Your task to perform on an android device: Open sound settings Image 0: 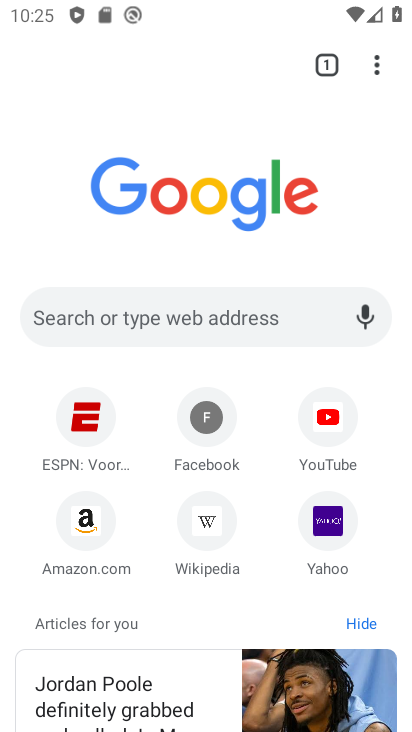
Step 0: press home button
Your task to perform on an android device: Open sound settings Image 1: 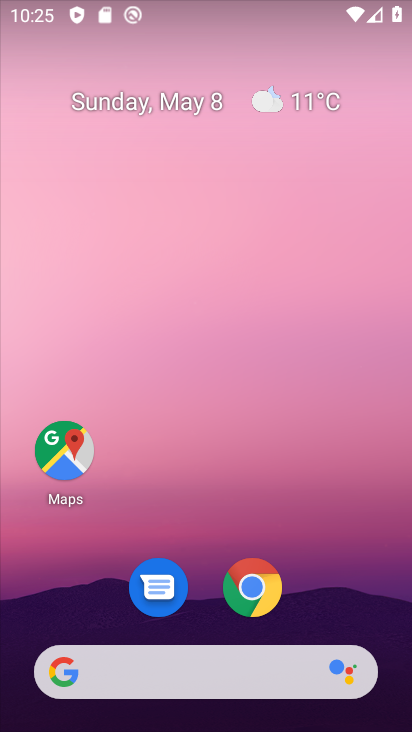
Step 1: drag from (197, 679) to (184, 120)
Your task to perform on an android device: Open sound settings Image 2: 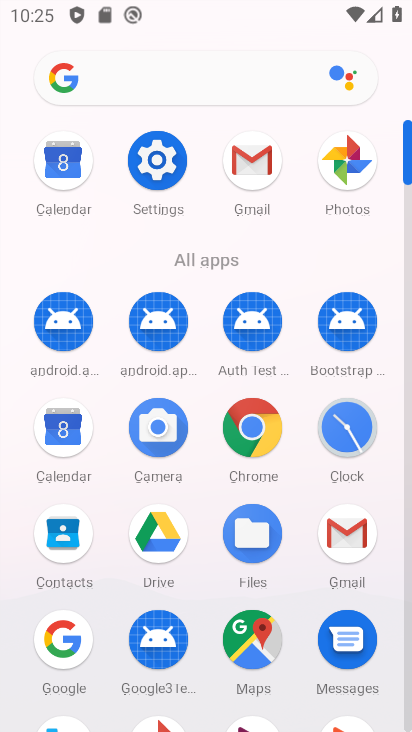
Step 2: click (156, 166)
Your task to perform on an android device: Open sound settings Image 3: 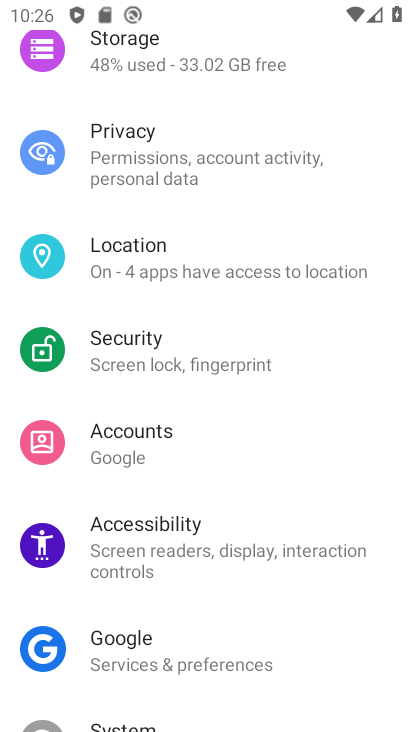
Step 3: drag from (138, 223) to (120, 714)
Your task to perform on an android device: Open sound settings Image 4: 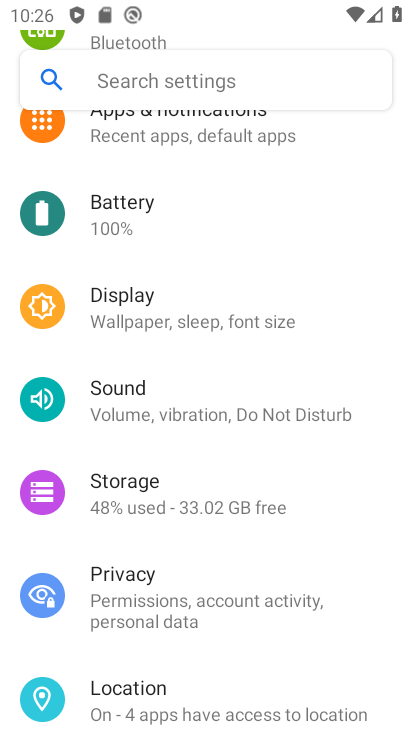
Step 4: click (151, 404)
Your task to perform on an android device: Open sound settings Image 5: 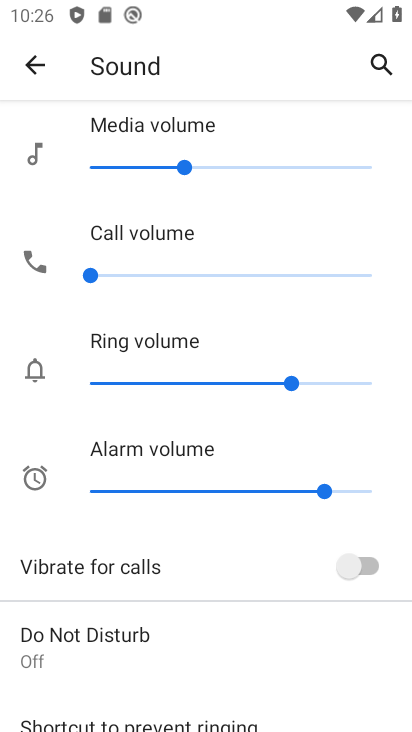
Step 5: task complete